Your task to perform on an android device: What's the weather going to be tomorrow? Image 0: 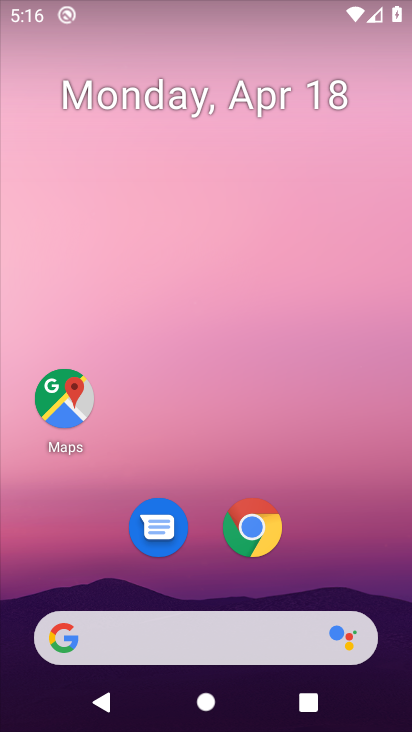
Step 0: drag from (211, 605) to (221, 178)
Your task to perform on an android device: What's the weather going to be tomorrow? Image 1: 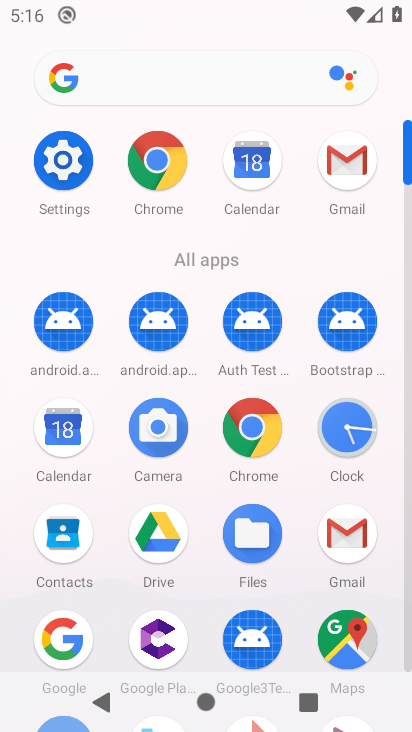
Step 1: click (53, 638)
Your task to perform on an android device: What's the weather going to be tomorrow? Image 2: 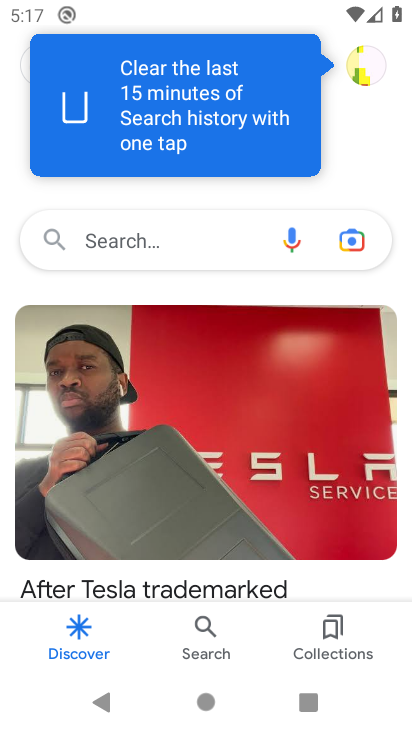
Step 2: click (174, 241)
Your task to perform on an android device: What's the weather going to be tomorrow? Image 3: 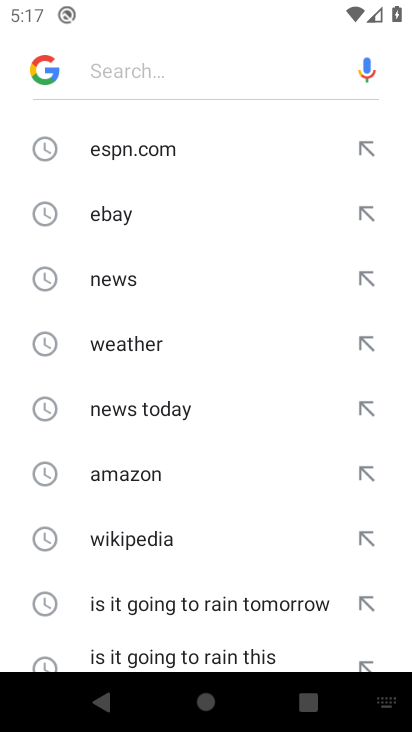
Step 3: type "whats the weather going tomorrow"
Your task to perform on an android device: What's the weather going to be tomorrow? Image 4: 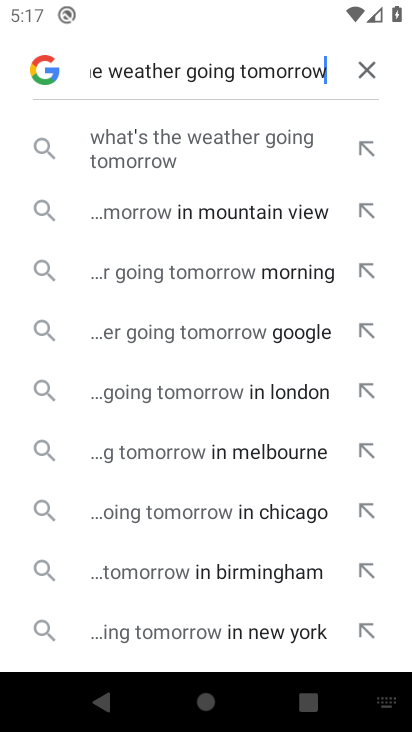
Step 4: click (163, 145)
Your task to perform on an android device: What's the weather going to be tomorrow? Image 5: 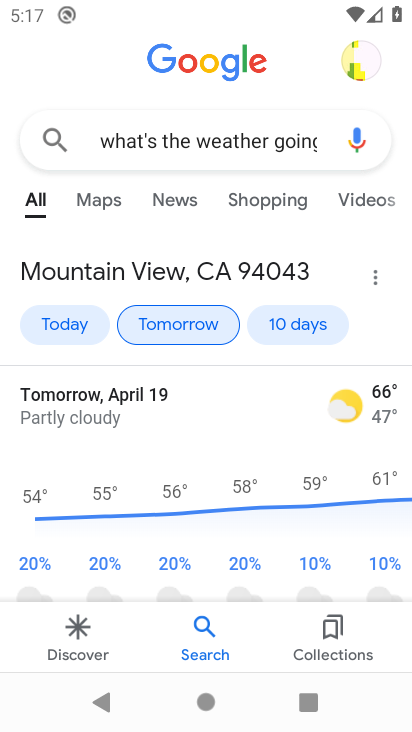
Step 5: click (179, 329)
Your task to perform on an android device: What's the weather going to be tomorrow? Image 6: 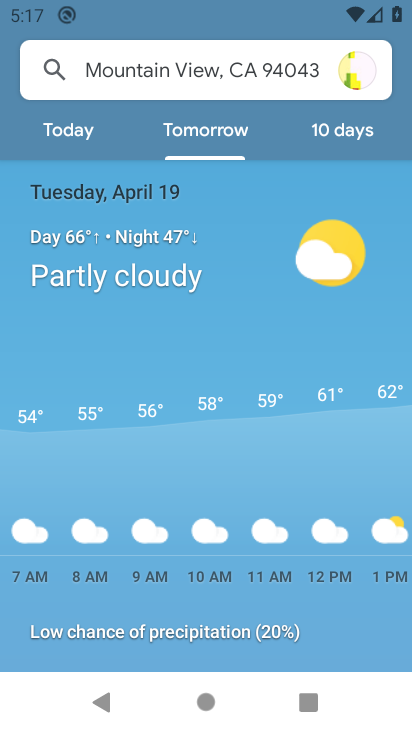
Step 6: task complete